Your task to perform on an android device: add a contact Image 0: 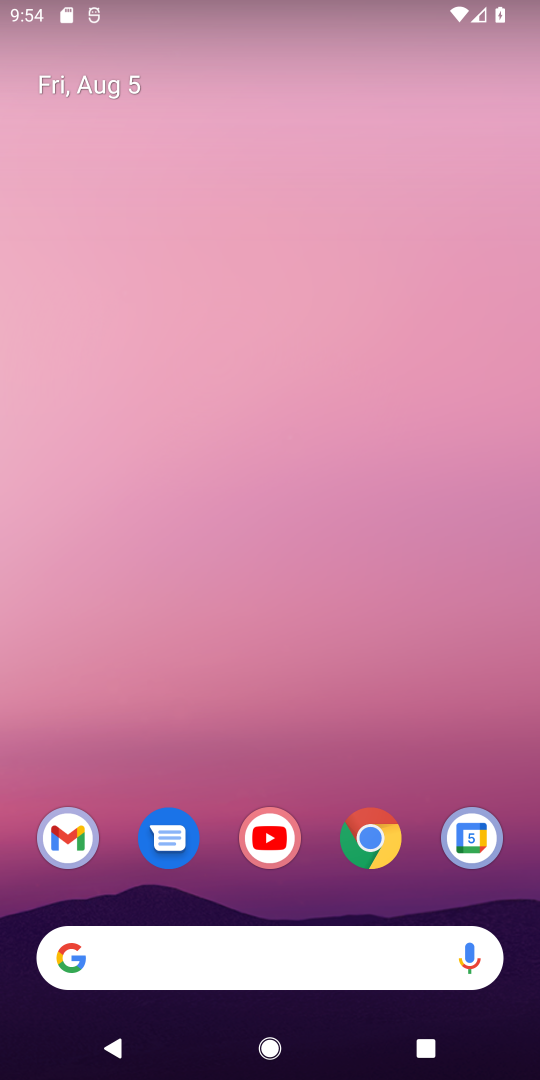
Step 0: drag from (235, 735) to (274, 77)
Your task to perform on an android device: add a contact Image 1: 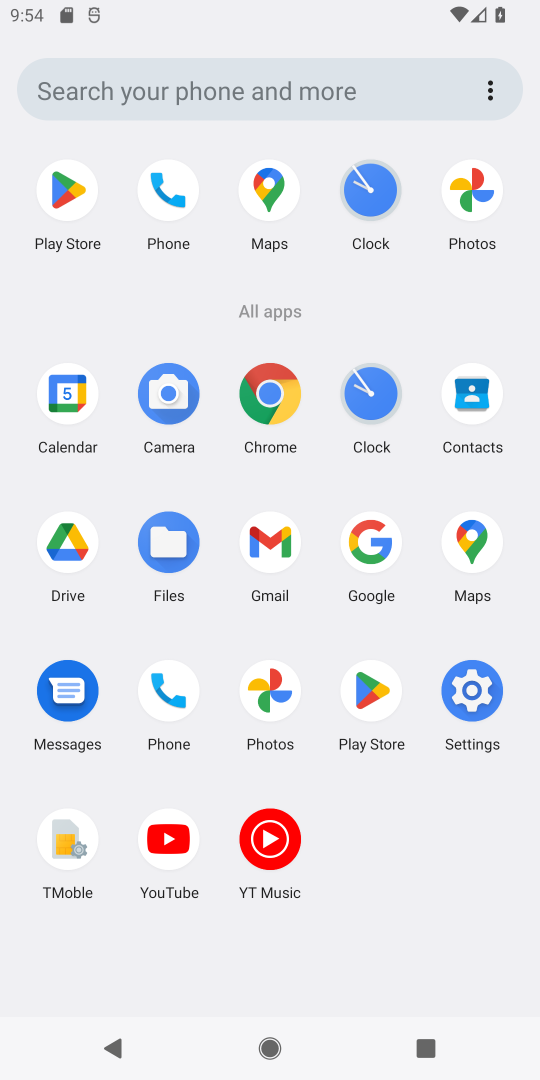
Step 1: click (165, 190)
Your task to perform on an android device: add a contact Image 2: 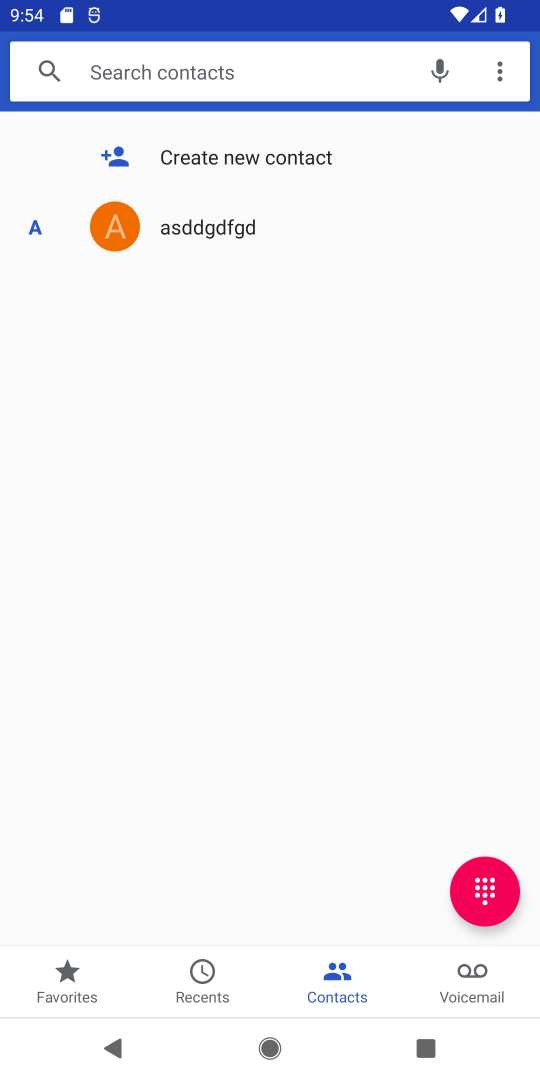
Step 2: click (206, 143)
Your task to perform on an android device: add a contact Image 3: 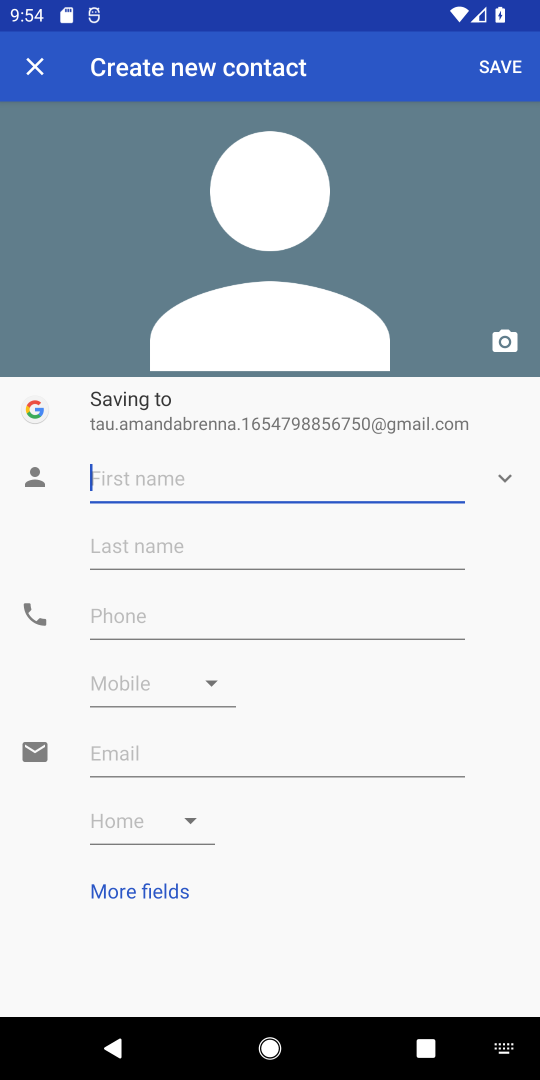
Step 3: type "fegdff"
Your task to perform on an android device: add a contact Image 4: 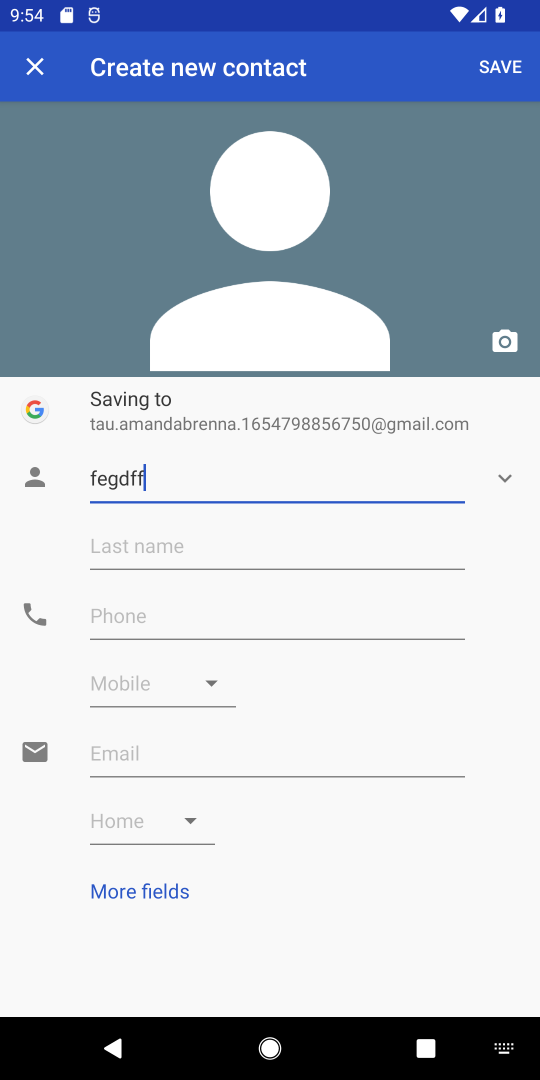
Step 4: click (173, 611)
Your task to perform on an android device: add a contact Image 5: 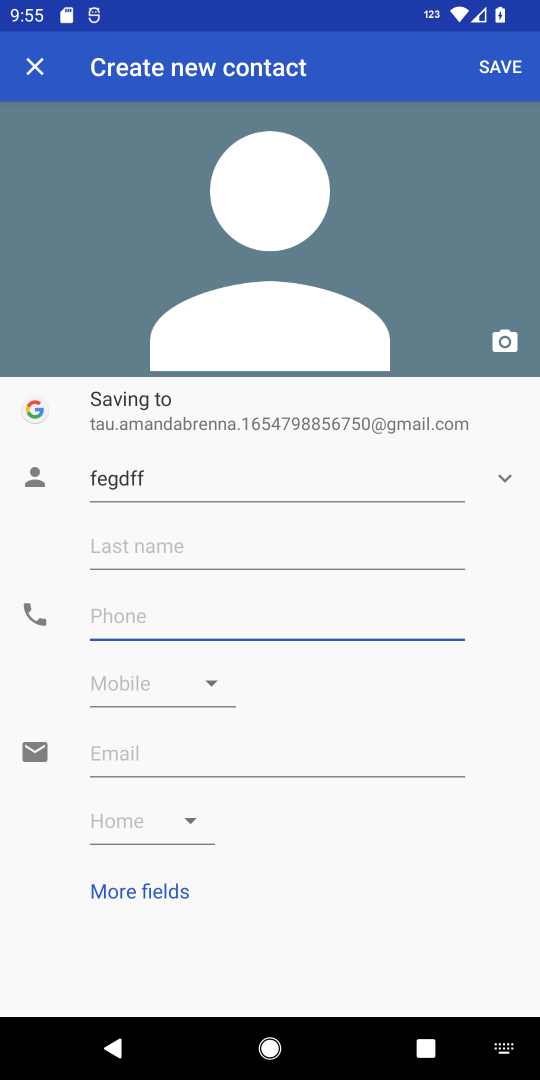
Step 5: type "312432546567"
Your task to perform on an android device: add a contact Image 6: 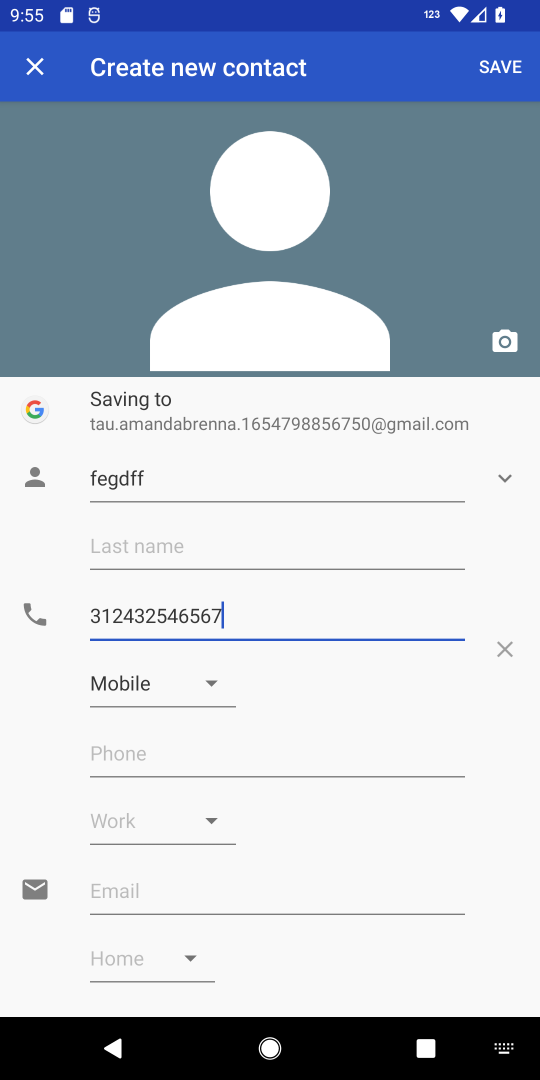
Step 6: click (510, 69)
Your task to perform on an android device: add a contact Image 7: 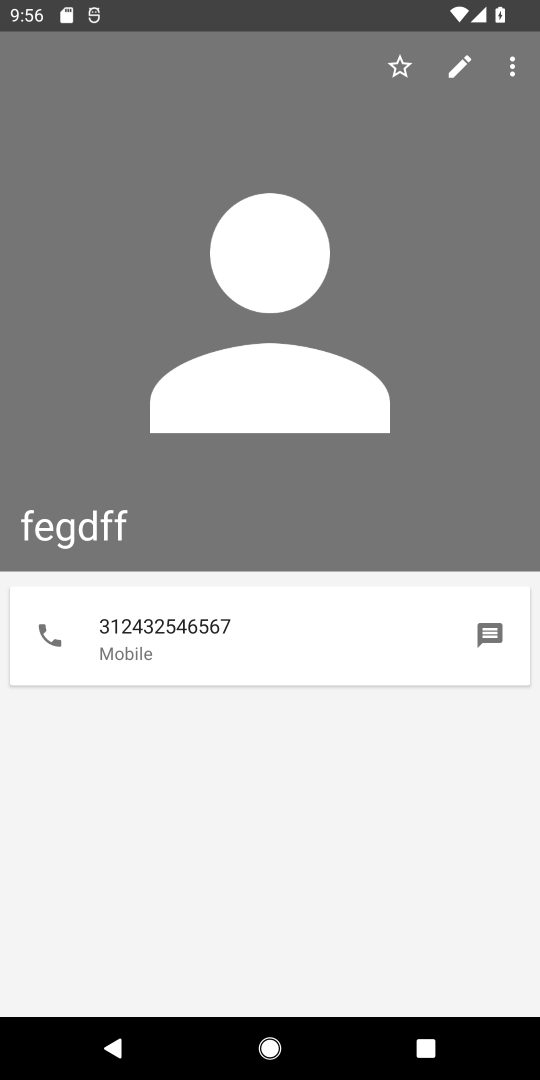
Step 7: task complete